Your task to perform on an android device: turn on data saver in the chrome app Image 0: 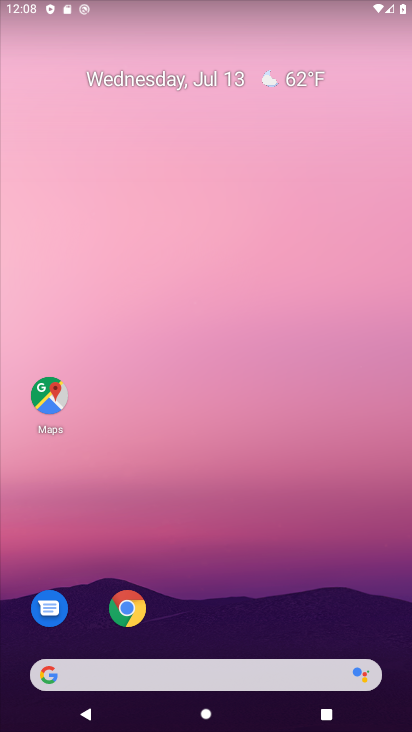
Step 0: drag from (320, 559) to (360, 67)
Your task to perform on an android device: turn on data saver in the chrome app Image 1: 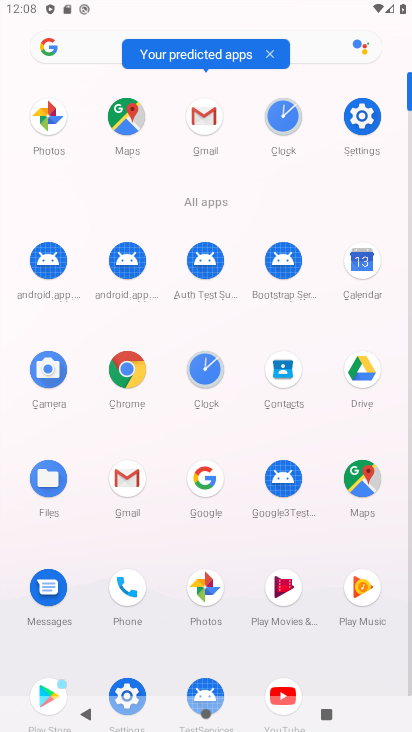
Step 1: click (141, 378)
Your task to perform on an android device: turn on data saver in the chrome app Image 2: 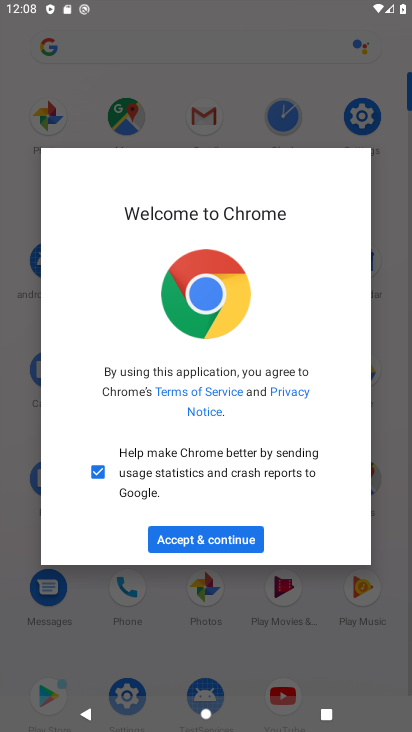
Step 2: click (228, 544)
Your task to perform on an android device: turn on data saver in the chrome app Image 3: 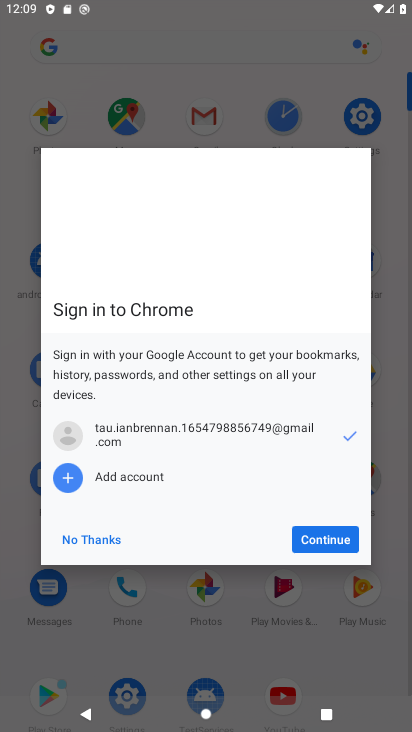
Step 3: click (315, 539)
Your task to perform on an android device: turn on data saver in the chrome app Image 4: 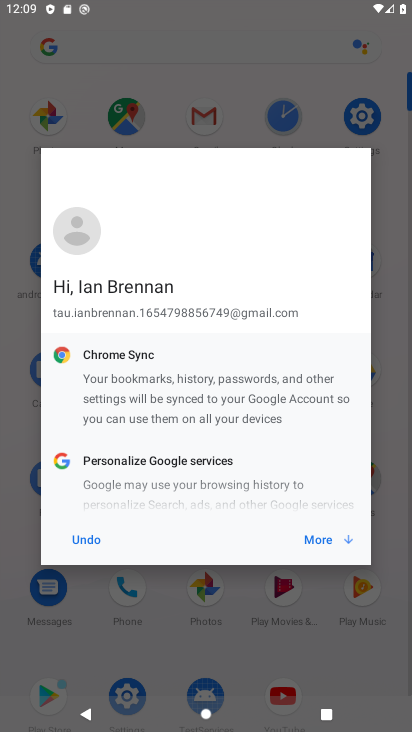
Step 4: click (315, 536)
Your task to perform on an android device: turn on data saver in the chrome app Image 5: 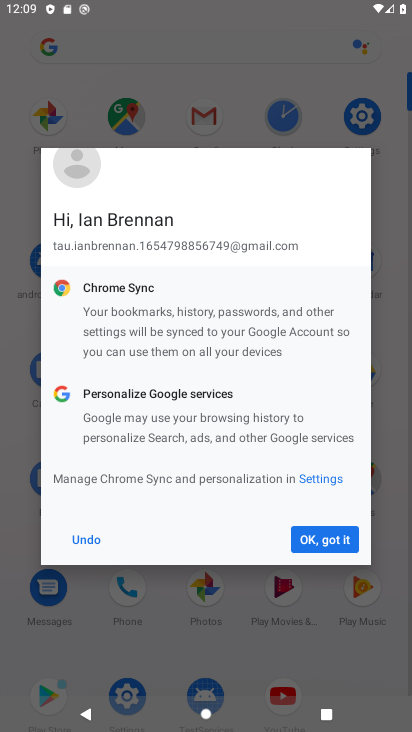
Step 5: click (319, 543)
Your task to perform on an android device: turn on data saver in the chrome app Image 6: 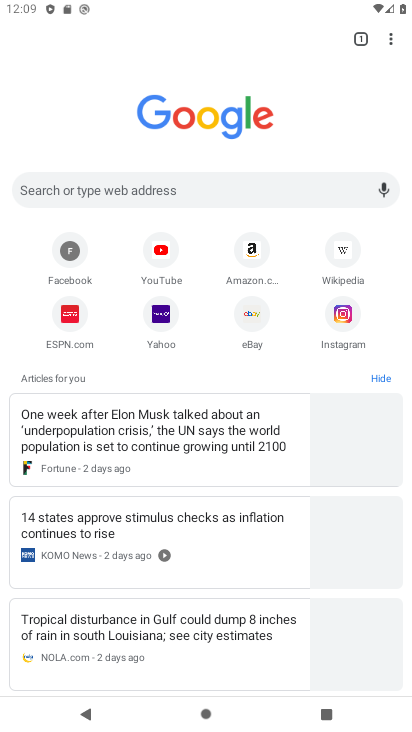
Step 6: click (391, 43)
Your task to perform on an android device: turn on data saver in the chrome app Image 7: 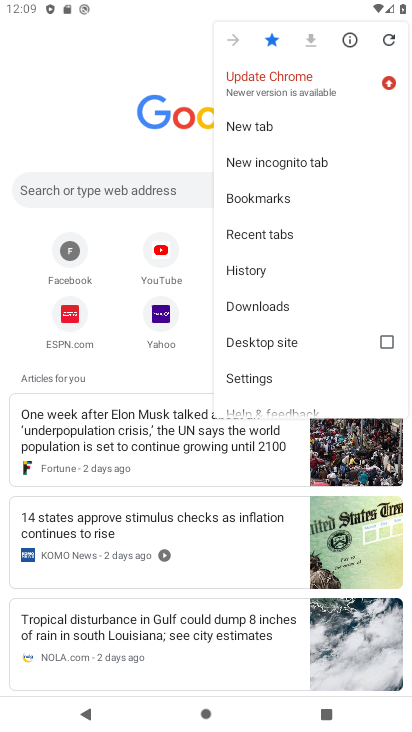
Step 7: click (282, 379)
Your task to perform on an android device: turn on data saver in the chrome app Image 8: 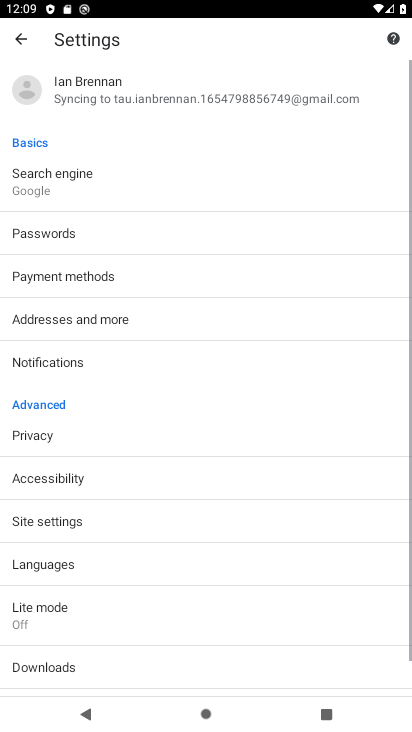
Step 8: drag from (284, 406) to (301, 270)
Your task to perform on an android device: turn on data saver in the chrome app Image 9: 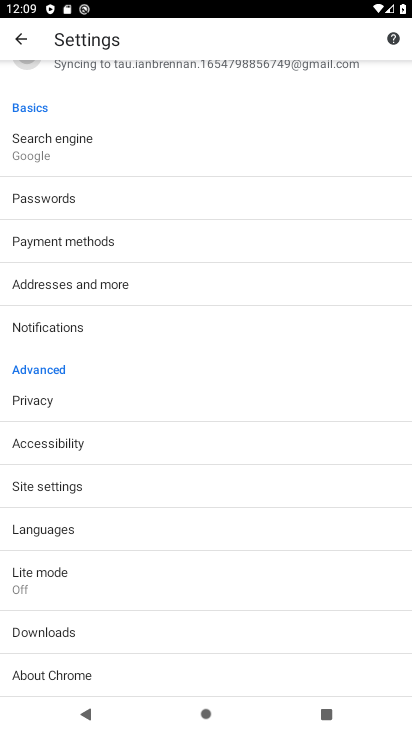
Step 9: drag from (301, 405) to (296, 248)
Your task to perform on an android device: turn on data saver in the chrome app Image 10: 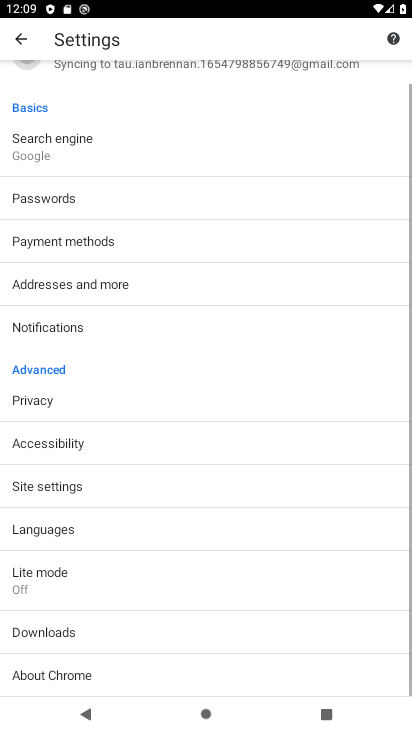
Step 10: drag from (296, 212) to (300, 358)
Your task to perform on an android device: turn on data saver in the chrome app Image 11: 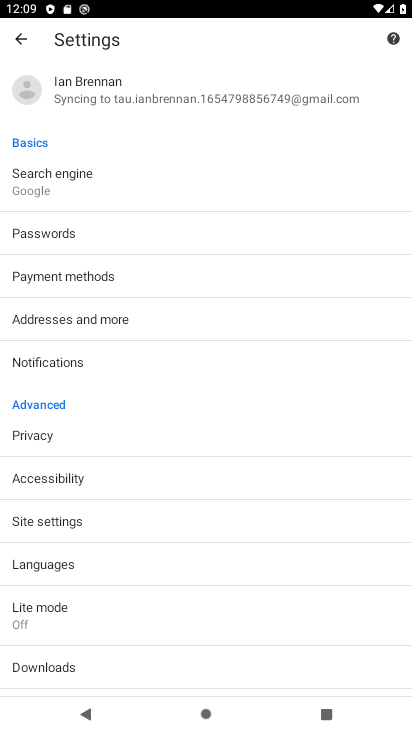
Step 11: drag from (288, 401) to (284, 234)
Your task to perform on an android device: turn on data saver in the chrome app Image 12: 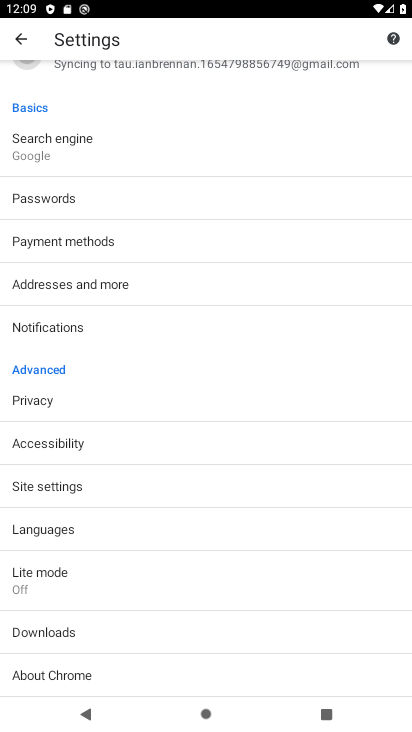
Step 12: click (225, 570)
Your task to perform on an android device: turn on data saver in the chrome app Image 13: 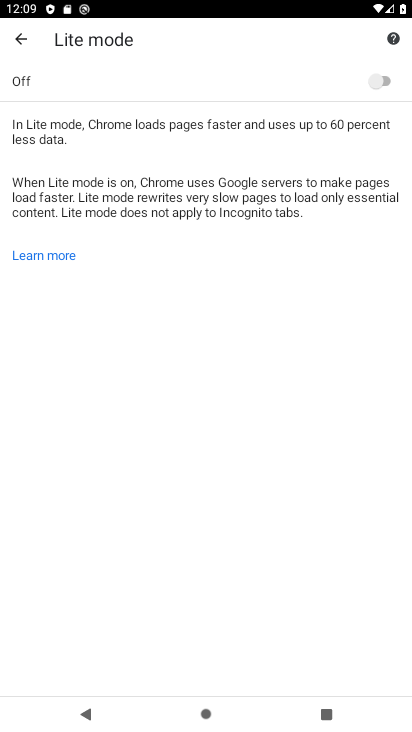
Step 13: click (376, 79)
Your task to perform on an android device: turn on data saver in the chrome app Image 14: 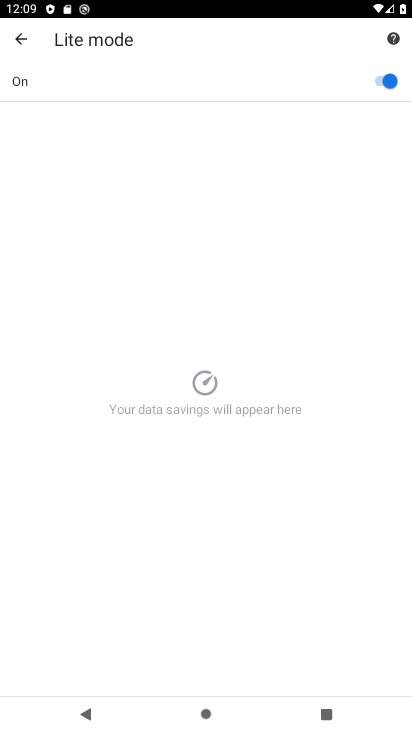
Step 14: task complete